Your task to perform on an android device: check out phone information Image 0: 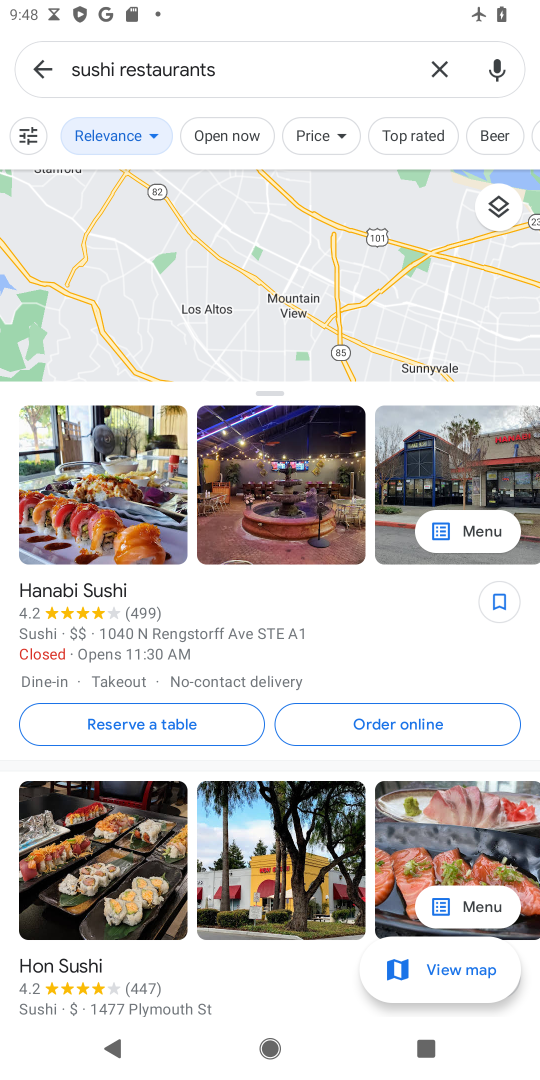
Step 0: press home button
Your task to perform on an android device: check out phone information Image 1: 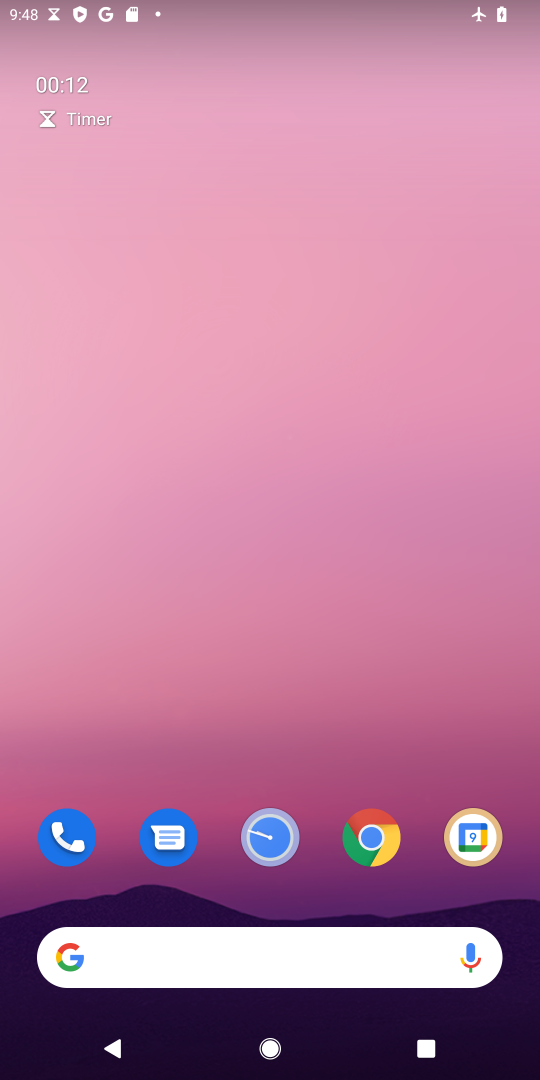
Step 1: drag from (295, 900) to (316, 147)
Your task to perform on an android device: check out phone information Image 2: 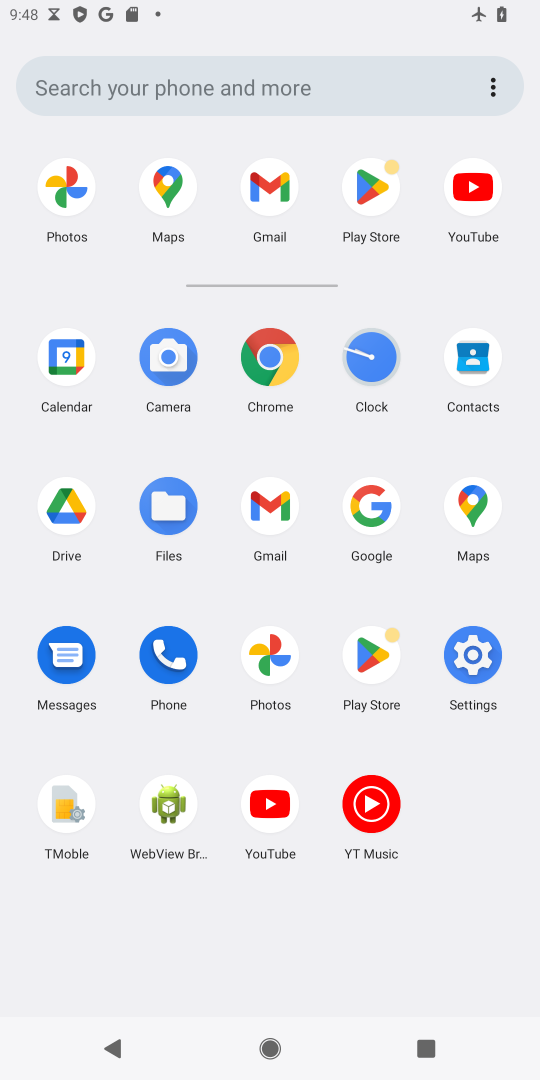
Step 2: click (455, 653)
Your task to perform on an android device: check out phone information Image 3: 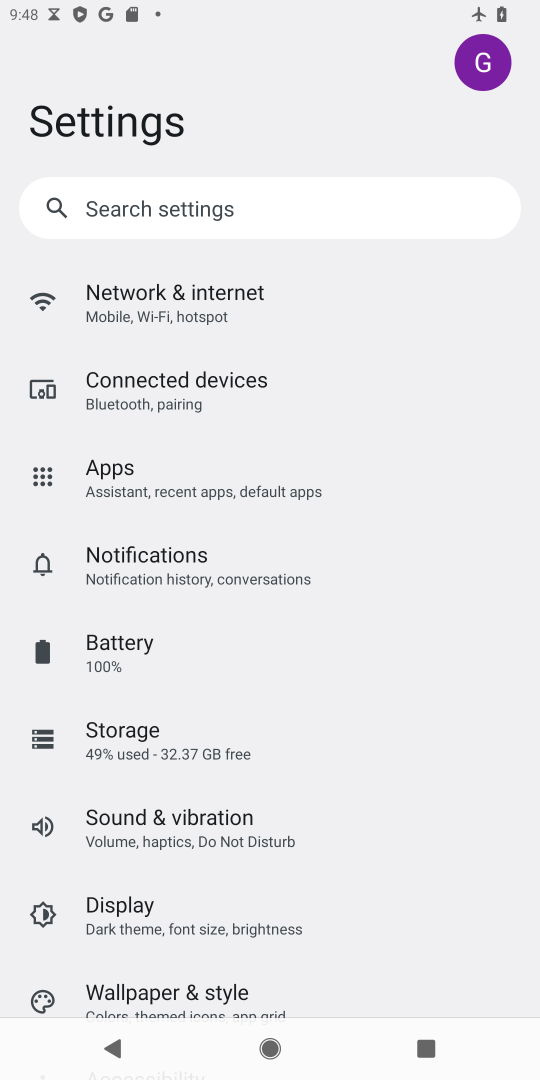
Step 3: drag from (256, 922) to (257, 324)
Your task to perform on an android device: check out phone information Image 4: 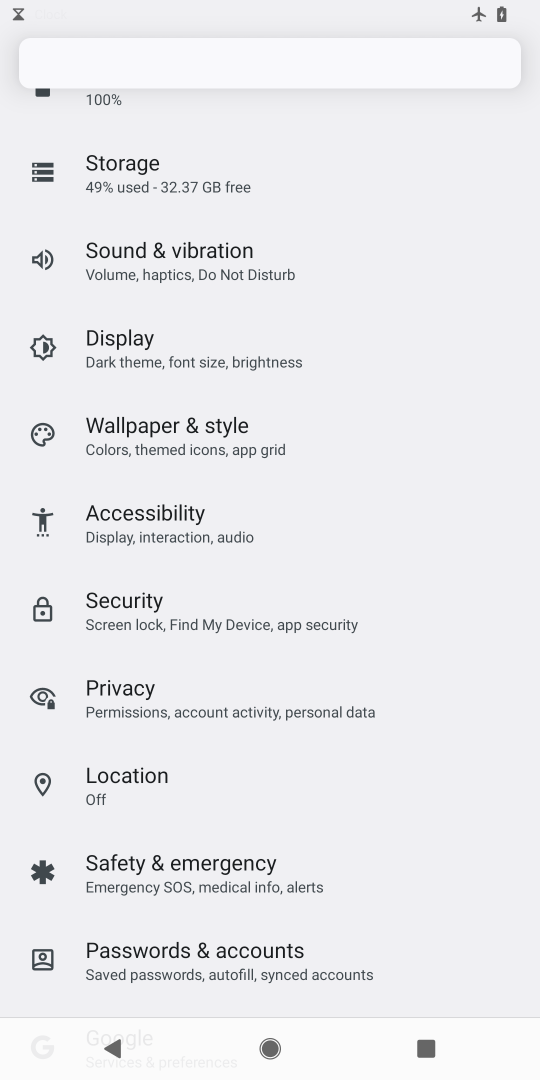
Step 4: drag from (244, 933) to (235, 457)
Your task to perform on an android device: check out phone information Image 5: 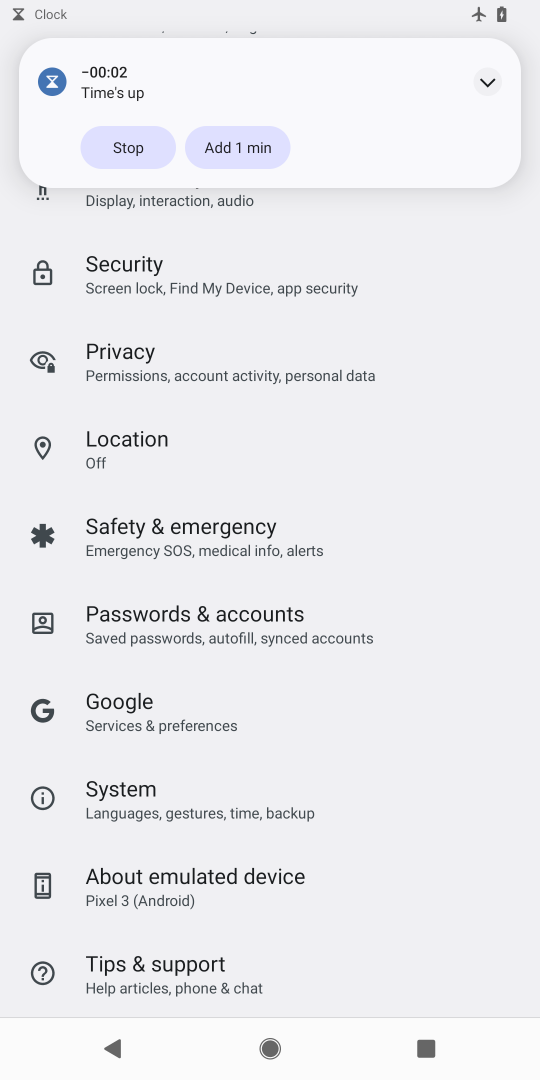
Step 5: drag from (164, 968) to (159, 511)
Your task to perform on an android device: check out phone information Image 6: 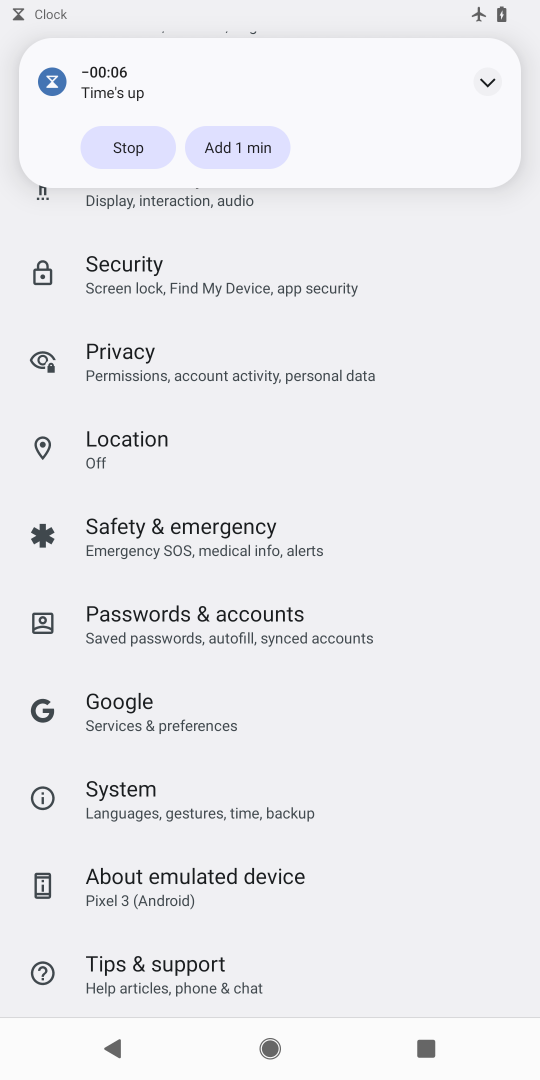
Step 6: drag from (173, 962) to (168, 462)
Your task to perform on an android device: check out phone information Image 7: 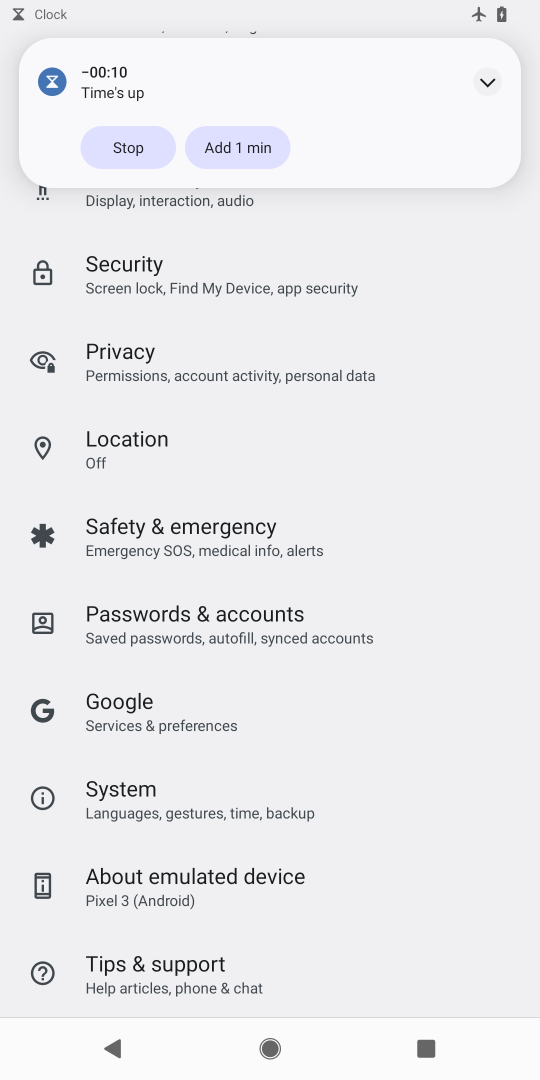
Step 7: drag from (144, 979) to (122, 527)
Your task to perform on an android device: check out phone information Image 8: 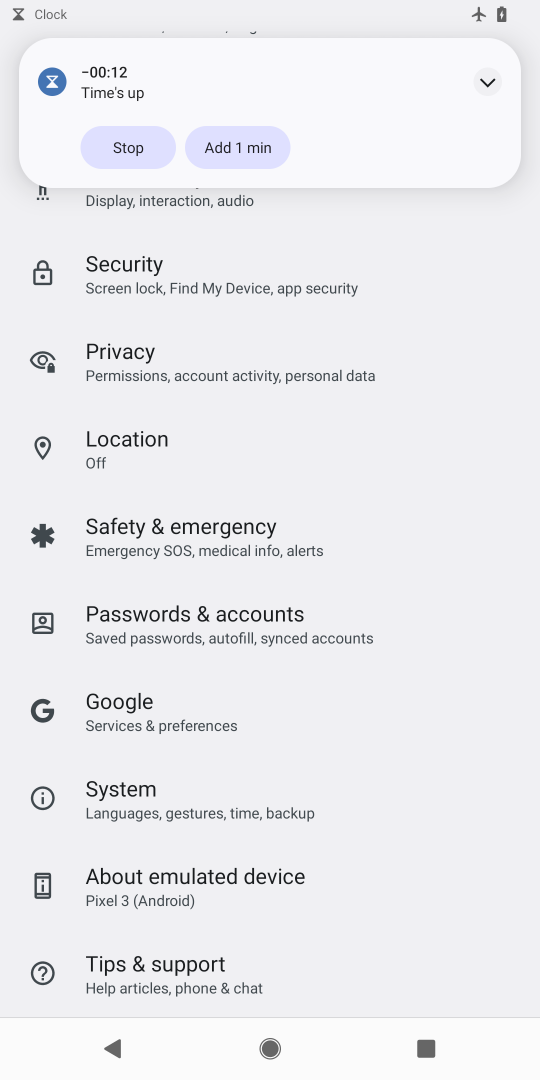
Step 8: click (183, 878)
Your task to perform on an android device: check out phone information Image 9: 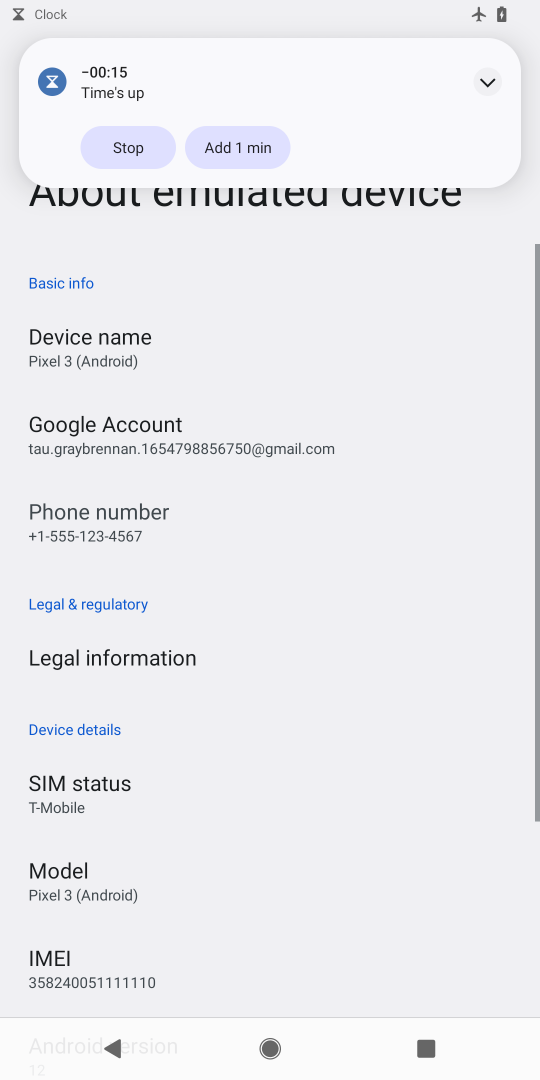
Step 9: drag from (176, 909) to (176, 373)
Your task to perform on an android device: check out phone information Image 10: 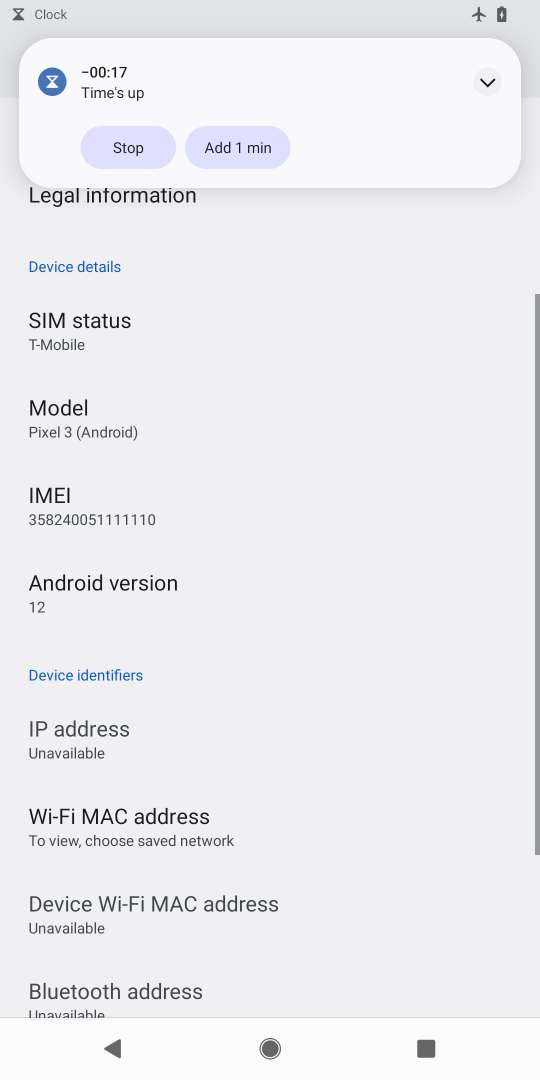
Step 10: drag from (156, 929) to (153, 530)
Your task to perform on an android device: check out phone information Image 11: 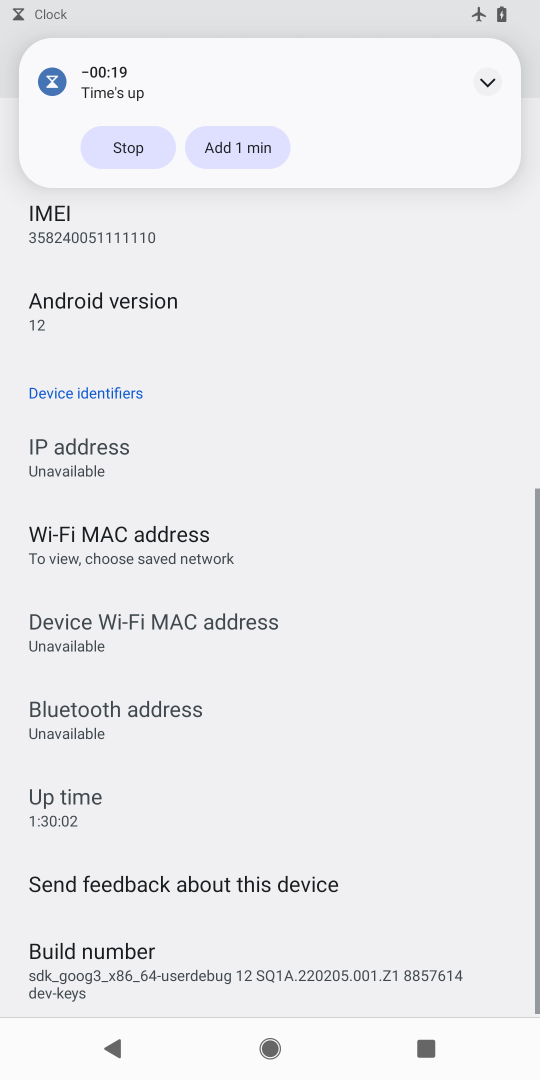
Step 11: drag from (161, 941) to (148, 494)
Your task to perform on an android device: check out phone information Image 12: 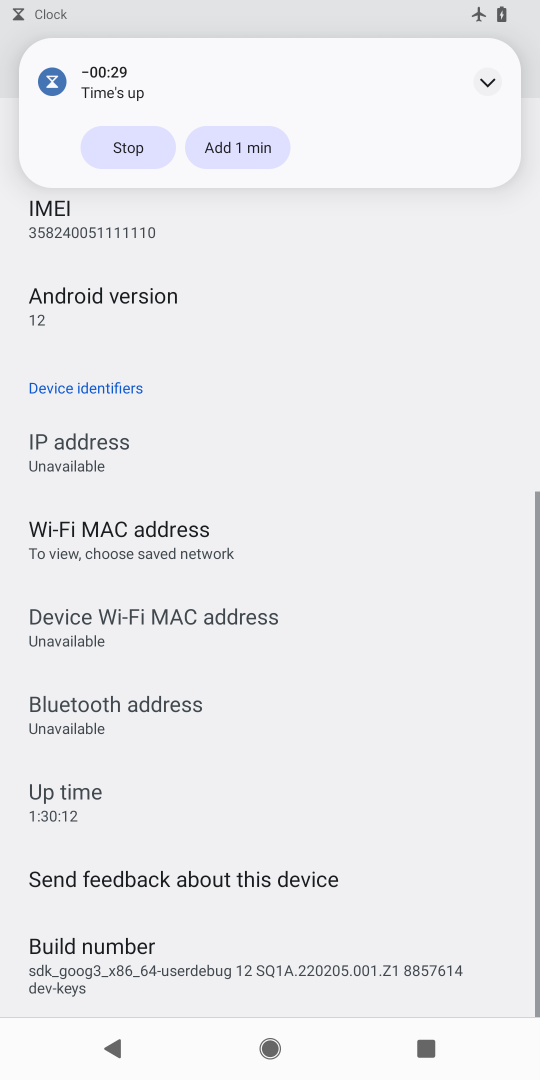
Step 12: click (123, 142)
Your task to perform on an android device: check out phone information Image 13: 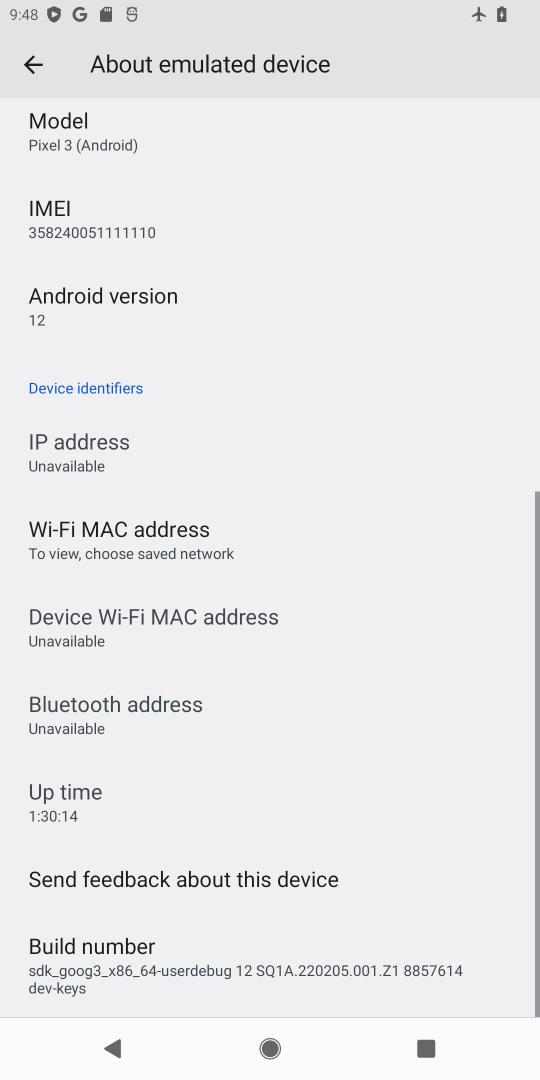
Step 13: task complete